Your task to perform on an android device: create a new album in the google photos Image 0: 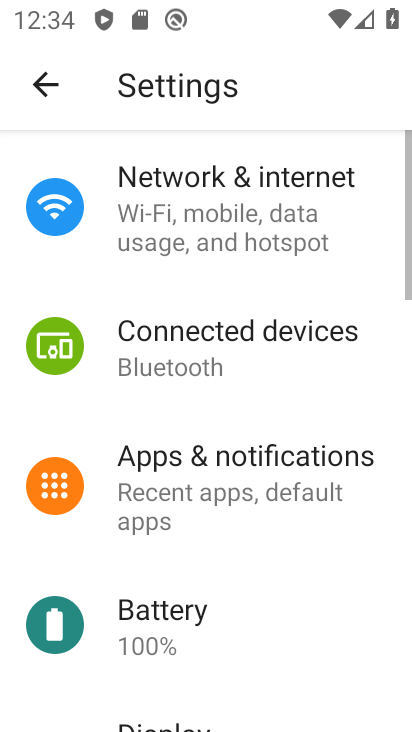
Step 0: press home button
Your task to perform on an android device: create a new album in the google photos Image 1: 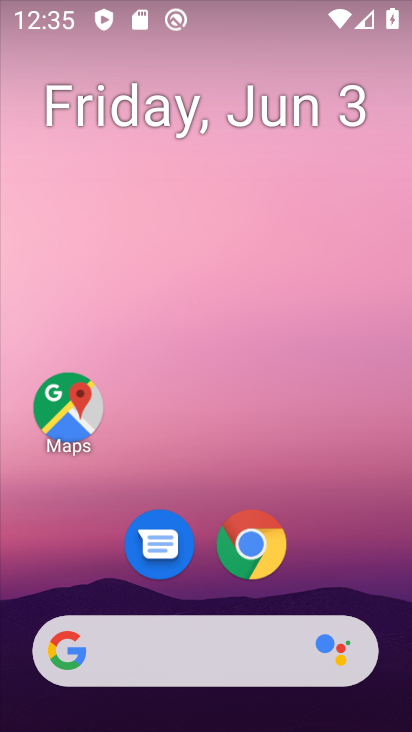
Step 1: drag from (315, 533) to (223, 0)
Your task to perform on an android device: create a new album in the google photos Image 2: 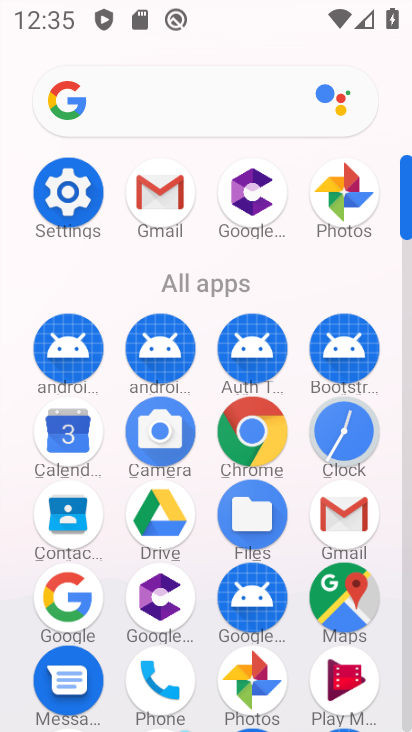
Step 2: click (259, 678)
Your task to perform on an android device: create a new album in the google photos Image 3: 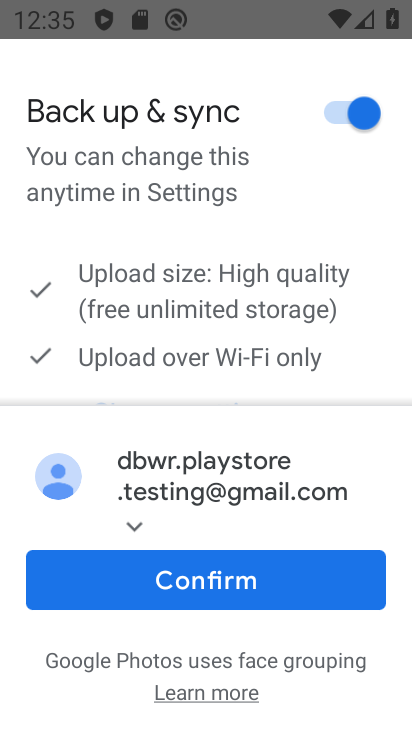
Step 3: click (264, 572)
Your task to perform on an android device: create a new album in the google photos Image 4: 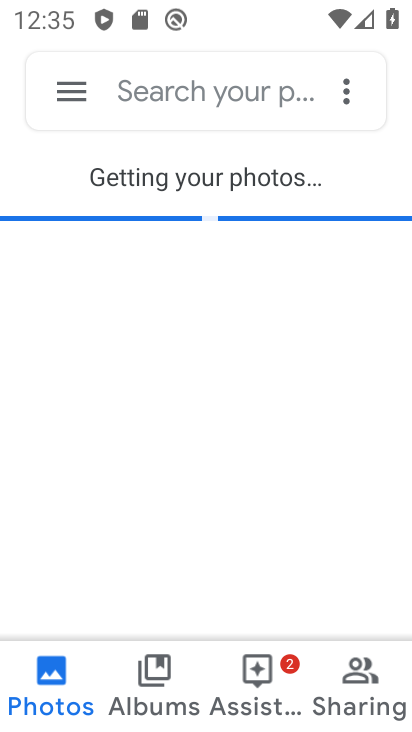
Step 4: click (160, 673)
Your task to perform on an android device: create a new album in the google photos Image 5: 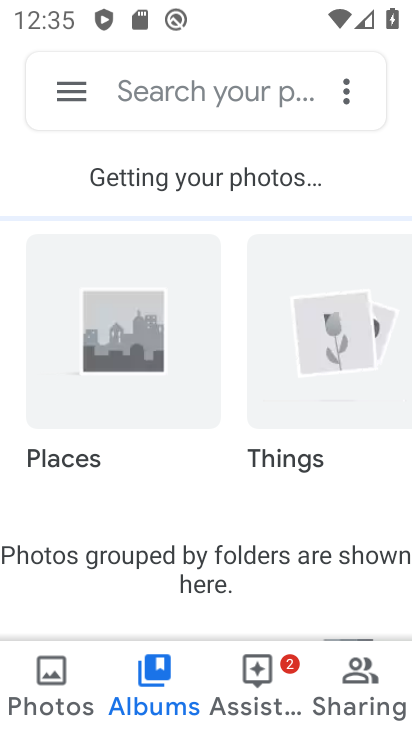
Step 5: click (336, 90)
Your task to perform on an android device: create a new album in the google photos Image 6: 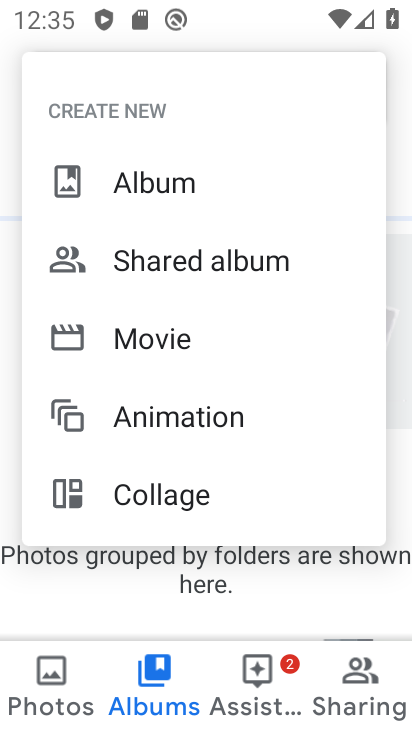
Step 6: click (218, 193)
Your task to perform on an android device: create a new album in the google photos Image 7: 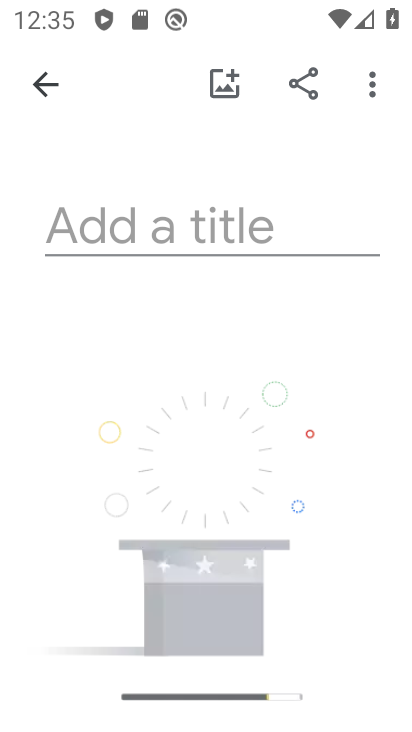
Step 7: click (120, 227)
Your task to perform on an android device: create a new album in the google photos Image 8: 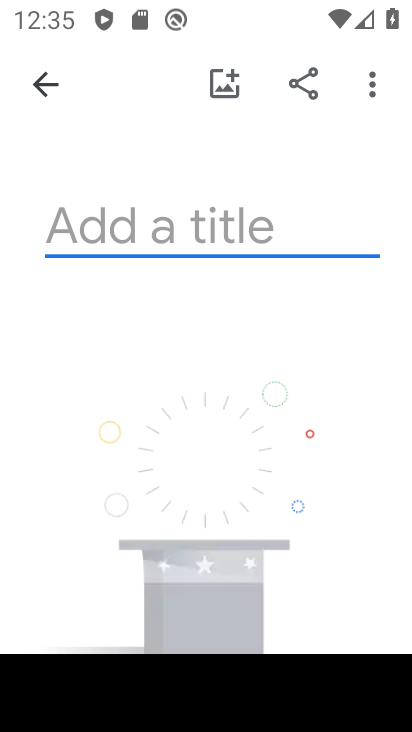
Step 8: type "njmknjmk"
Your task to perform on an android device: create a new album in the google photos Image 9: 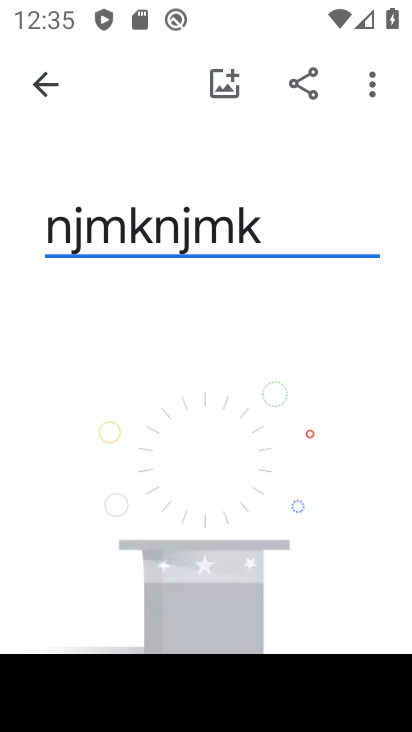
Step 9: click (231, 86)
Your task to perform on an android device: create a new album in the google photos Image 10: 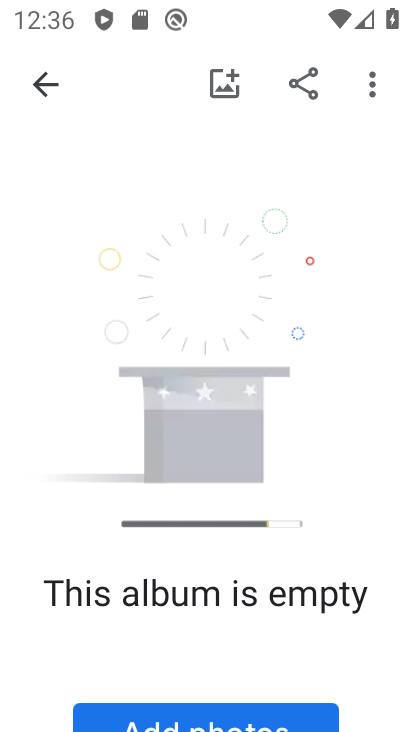
Step 10: click (214, 86)
Your task to perform on an android device: create a new album in the google photos Image 11: 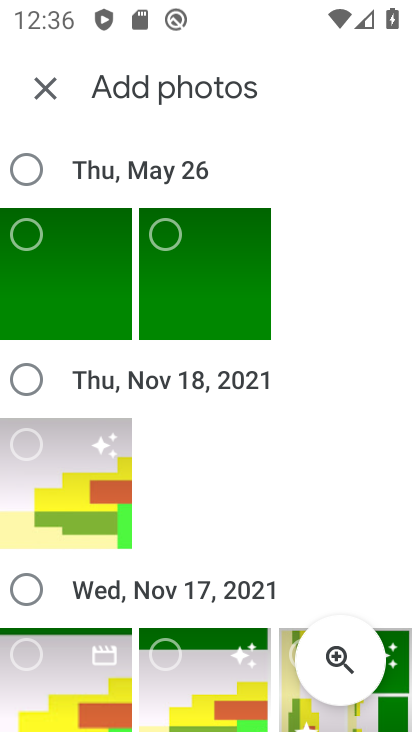
Step 11: click (169, 268)
Your task to perform on an android device: create a new album in the google photos Image 12: 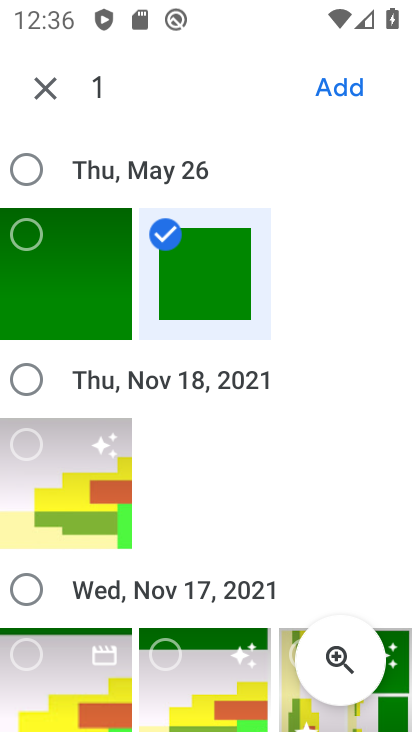
Step 12: click (322, 101)
Your task to perform on an android device: create a new album in the google photos Image 13: 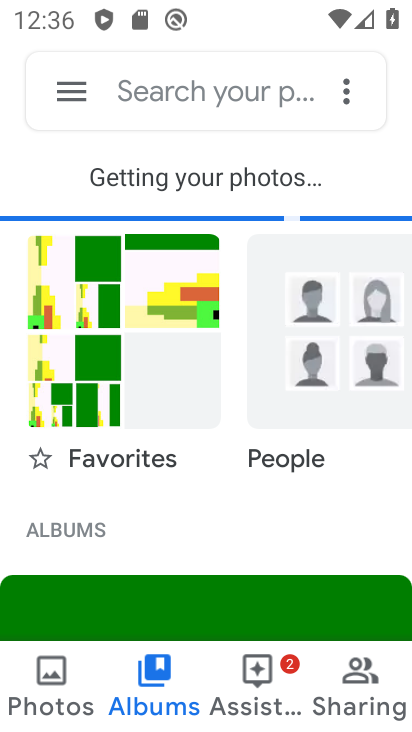
Step 13: task complete